Your task to perform on an android device: turn notification dots off Image 0: 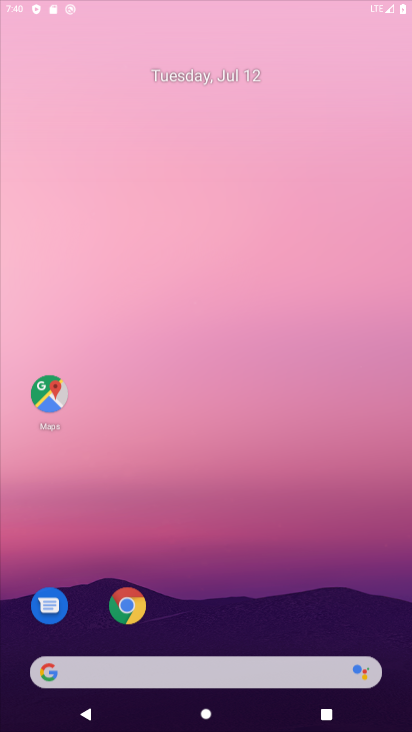
Step 0: click (241, 215)
Your task to perform on an android device: turn notification dots off Image 1: 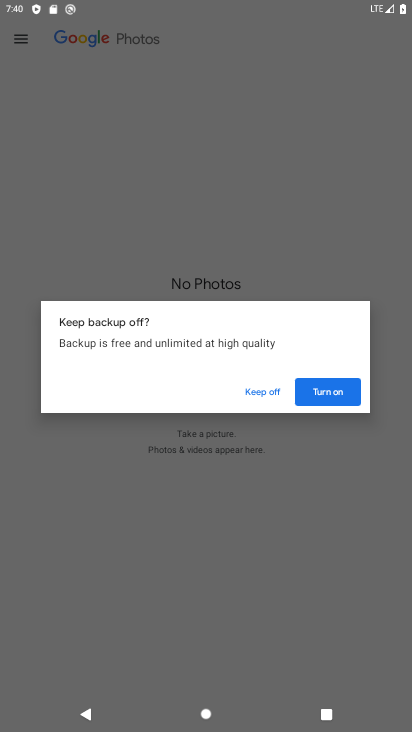
Step 1: press home button
Your task to perform on an android device: turn notification dots off Image 2: 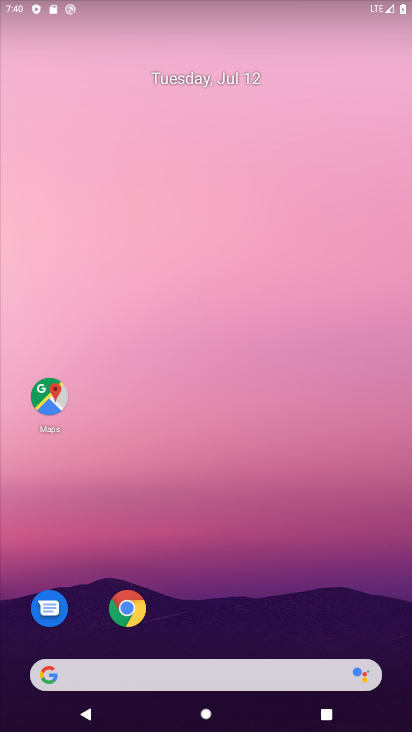
Step 2: drag from (244, 629) to (261, 120)
Your task to perform on an android device: turn notification dots off Image 3: 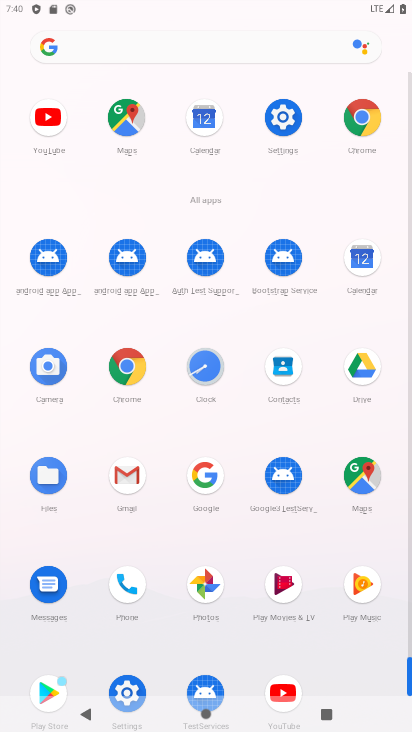
Step 3: click (120, 681)
Your task to perform on an android device: turn notification dots off Image 4: 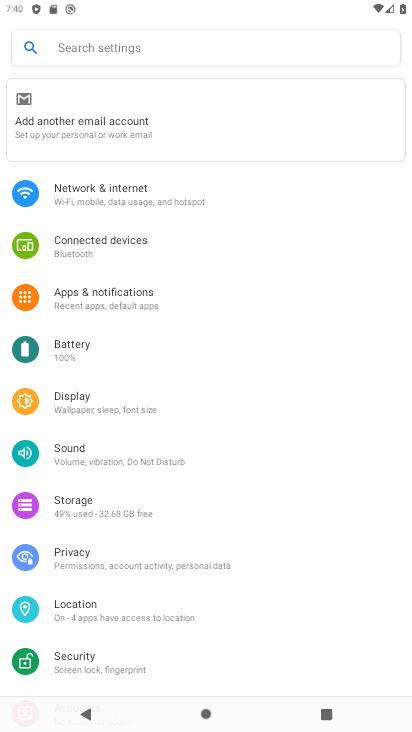
Step 4: click (260, 38)
Your task to perform on an android device: turn notification dots off Image 5: 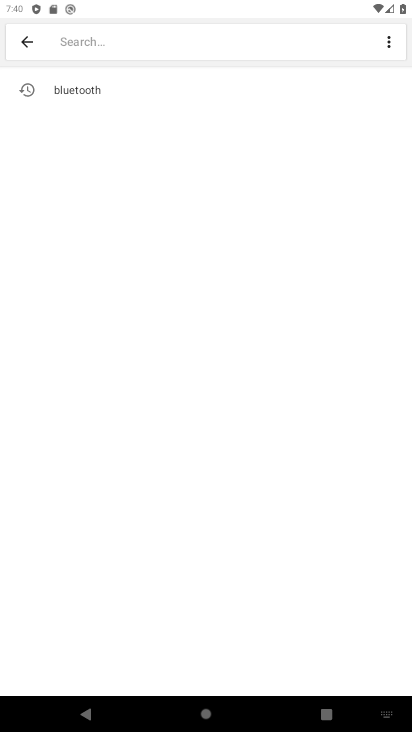
Step 5: type " notification dots "
Your task to perform on an android device: turn notification dots off Image 6: 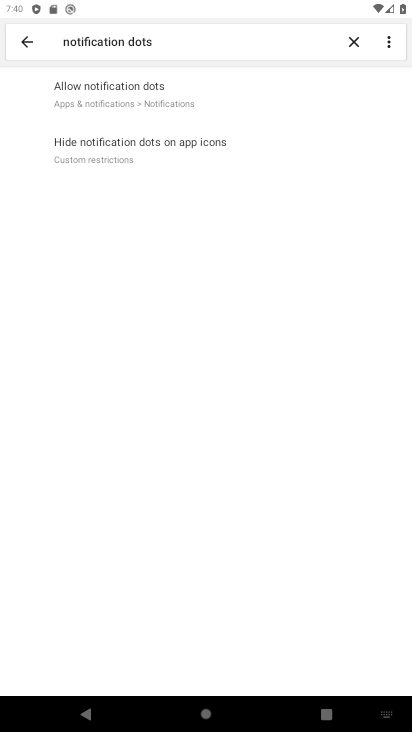
Step 6: click (126, 97)
Your task to perform on an android device: turn notification dots off Image 7: 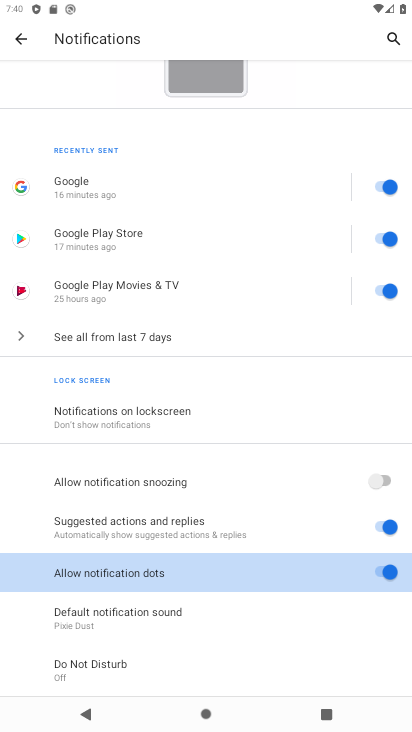
Step 7: click (375, 566)
Your task to perform on an android device: turn notification dots off Image 8: 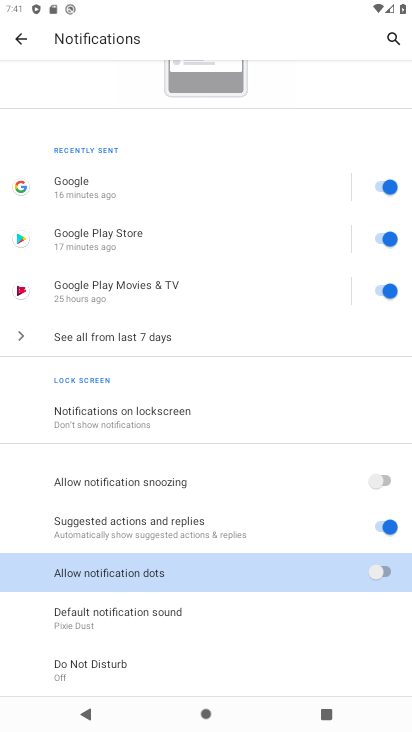
Step 8: task complete